Your task to perform on an android device: toggle location history Image 0: 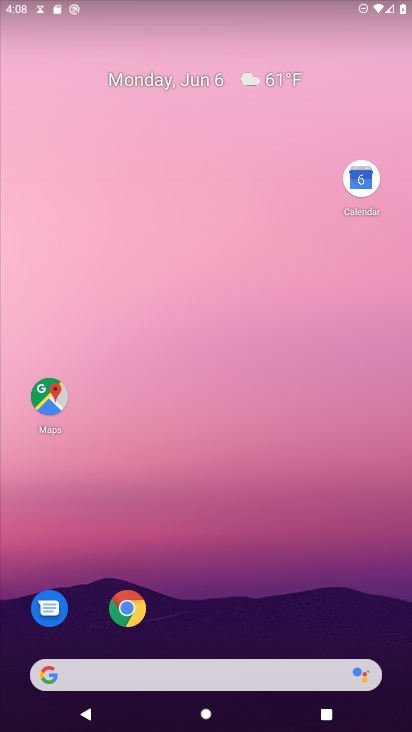
Step 0: drag from (251, 610) to (306, 11)
Your task to perform on an android device: toggle location history Image 1: 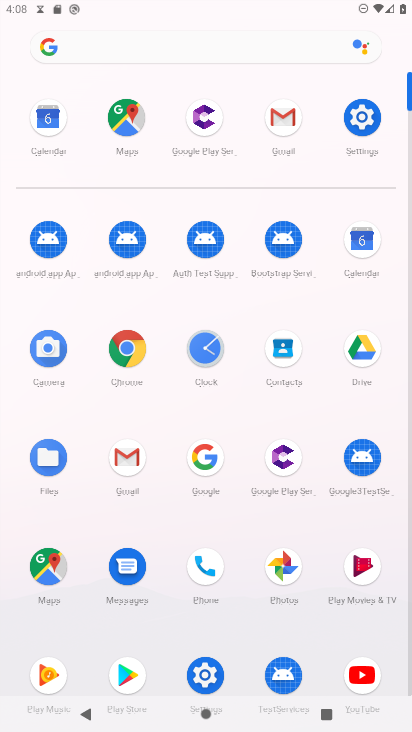
Step 1: click (356, 123)
Your task to perform on an android device: toggle location history Image 2: 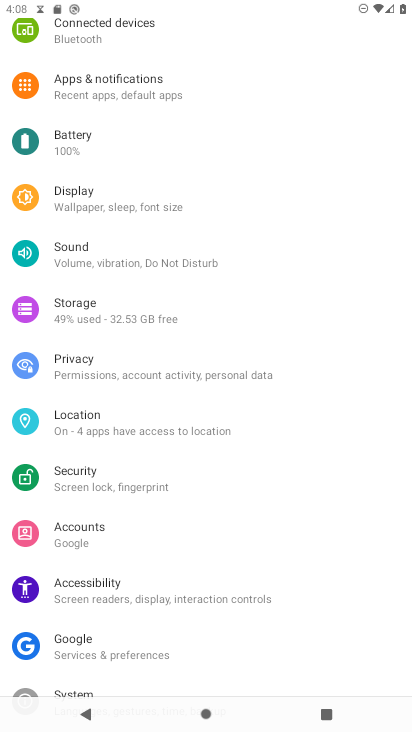
Step 2: click (109, 426)
Your task to perform on an android device: toggle location history Image 3: 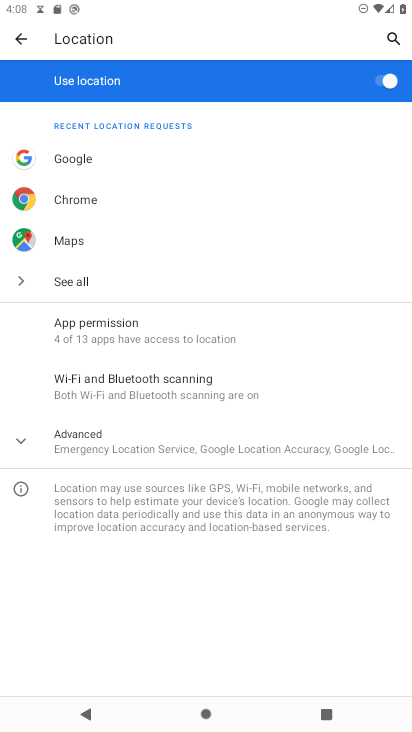
Step 3: click (144, 429)
Your task to perform on an android device: toggle location history Image 4: 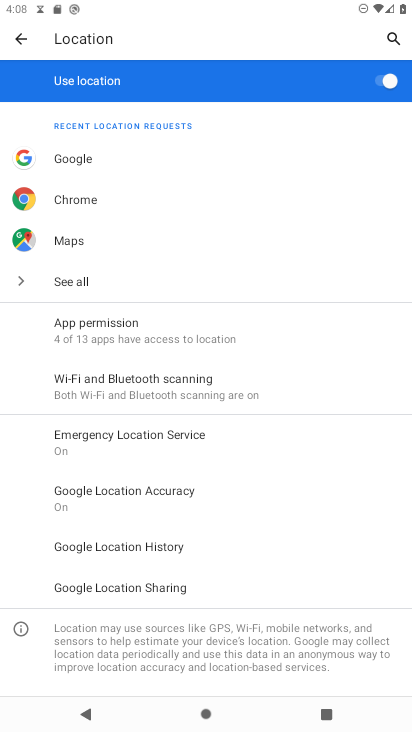
Step 4: click (129, 546)
Your task to perform on an android device: toggle location history Image 5: 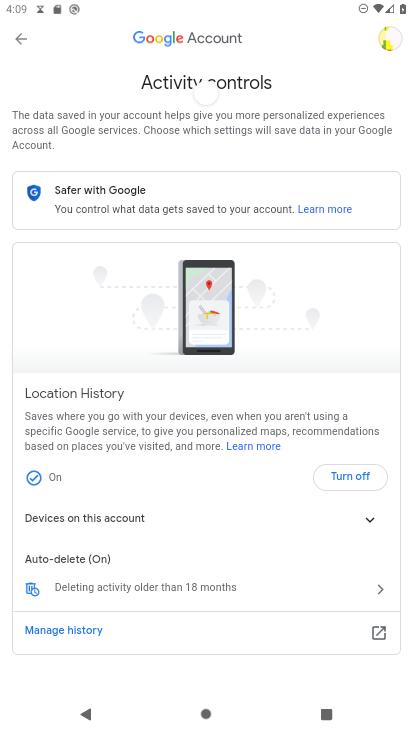
Step 5: click (349, 478)
Your task to perform on an android device: toggle location history Image 6: 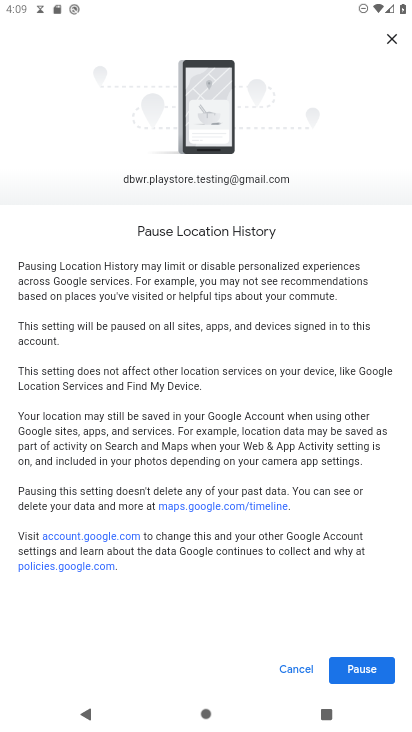
Step 6: drag from (285, 579) to (263, 15)
Your task to perform on an android device: toggle location history Image 7: 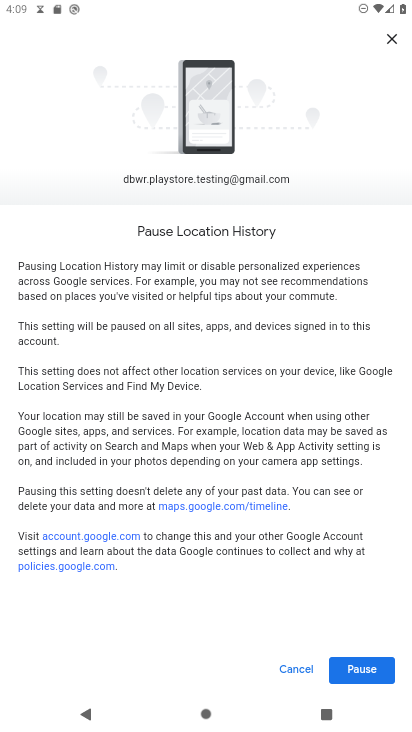
Step 7: click (360, 675)
Your task to perform on an android device: toggle location history Image 8: 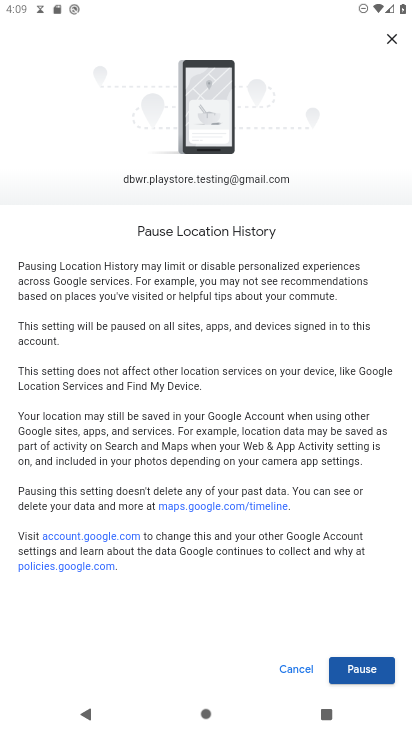
Step 8: click (374, 664)
Your task to perform on an android device: toggle location history Image 9: 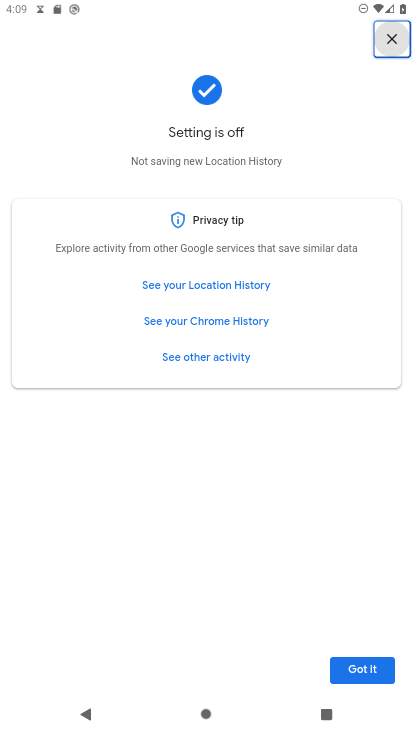
Step 9: task complete